Your task to perform on an android device: turn off picture-in-picture Image 0: 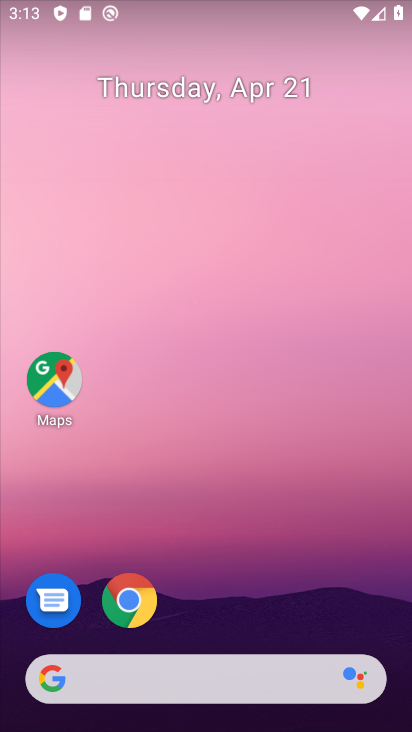
Step 0: click (124, 611)
Your task to perform on an android device: turn off picture-in-picture Image 1: 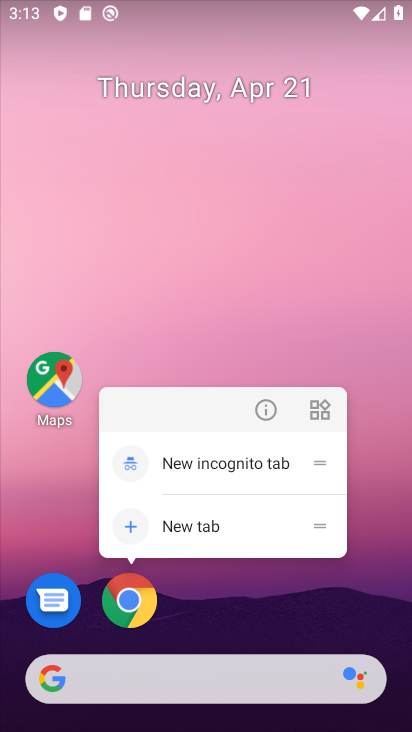
Step 1: click (262, 400)
Your task to perform on an android device: turn off picture-in-picture Image 2: 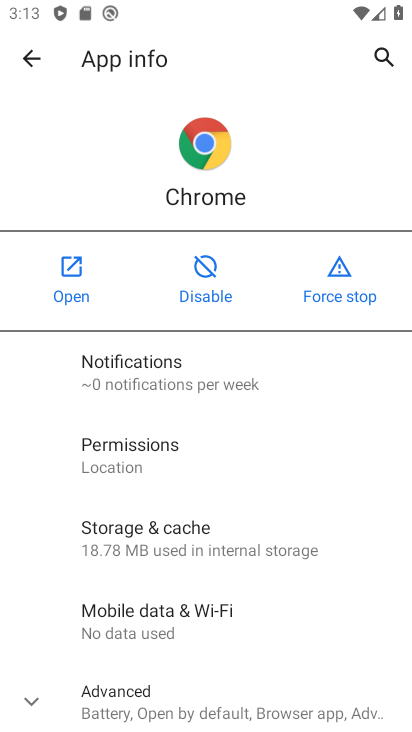
Step 2: click (263, 709)
Your task to perform on an android device: turn off picture-in-picture Image 3: 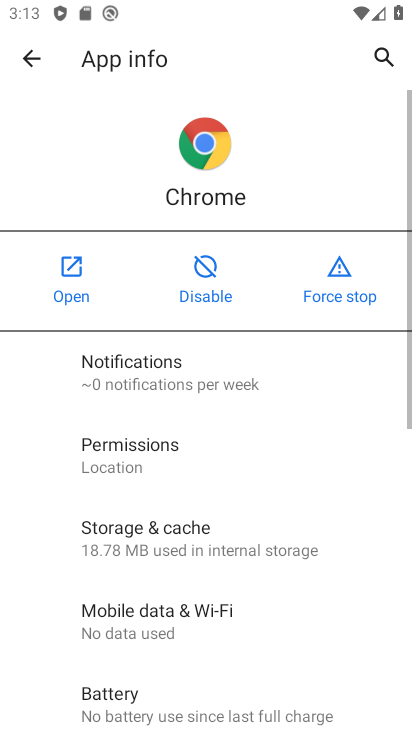
Step 3: drag from (267, 701) to (334, 544)
Your task to perform on an android device: turn off picture-in-picture Image 4: 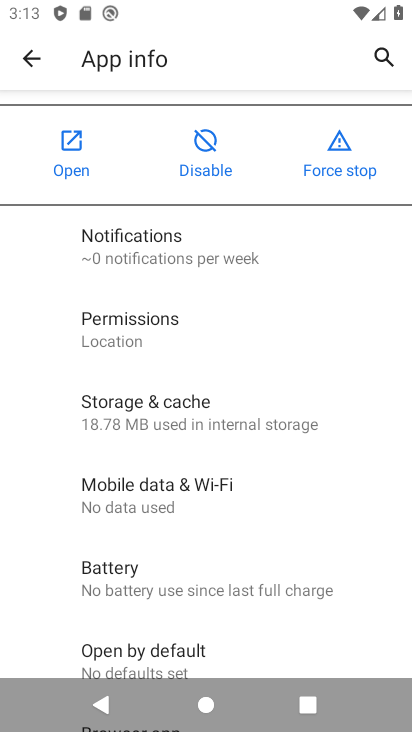
Step 4: drag from (298, 627) to (310, 443)
Your task to perform on an android device: turn off picture-in-picture Image 5: 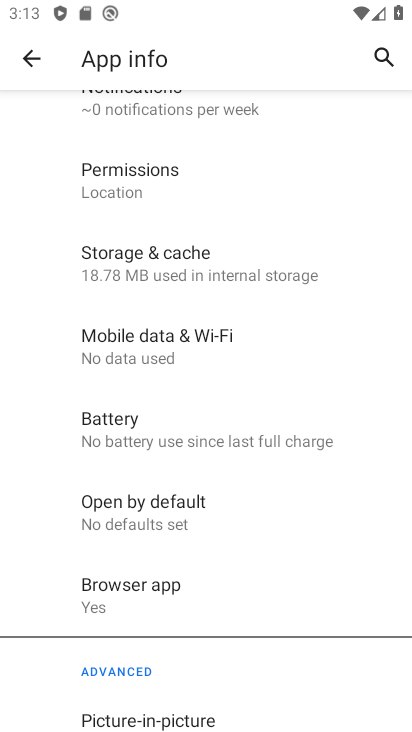
Step 5: drag from (292, 606) to (325, 447)
Your task to perform on an android device: turn off picture-in-picture Image 6: 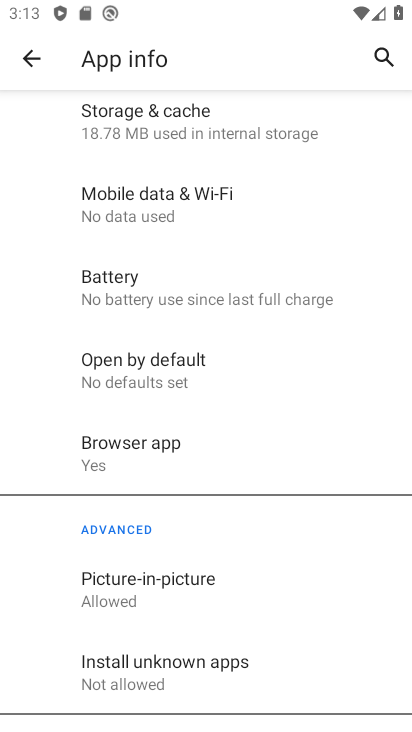
Step 6: click (288, 585)
Your task to perform on an android device: turn off picture-in-picture Image 7: 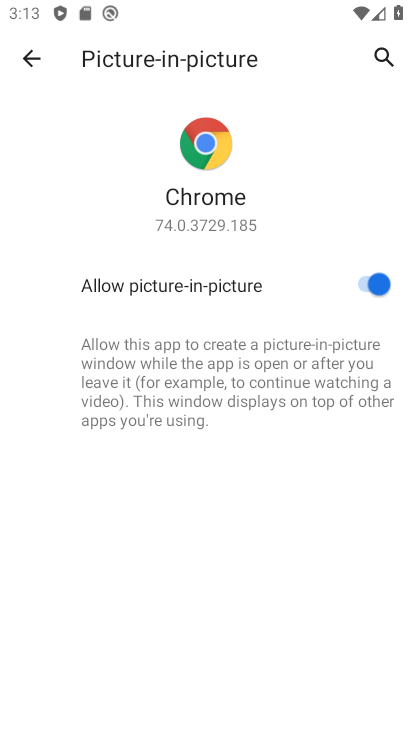
Step 7: click (340, 287)
Your task to perform on an android device: turn off picture-in-picture Image 8: 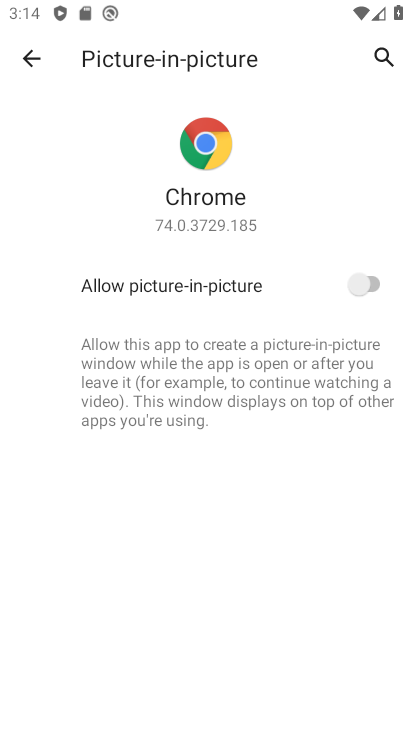
Step 8: task complete